Your task to perform on an android device: Go to Maps Image 0: 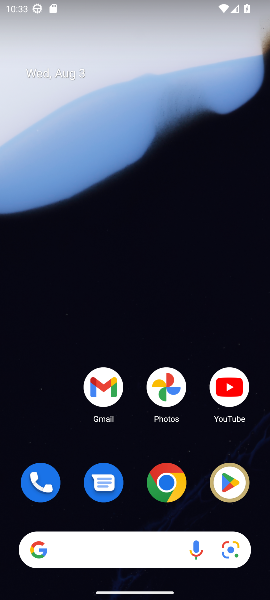
Step 0: drag from (119, 155) to (155, 17)
Your task to perform on an android device: Go to Maps Image 1: 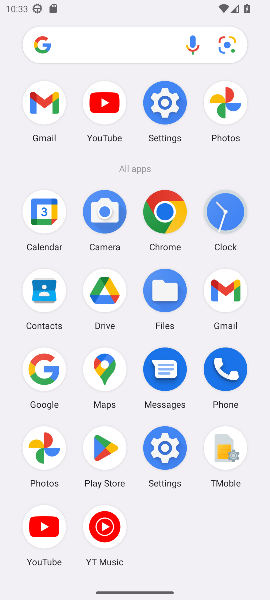
Step 1: click (98, 390)
Your task to perform on an android device: Go to Maps Image 2: 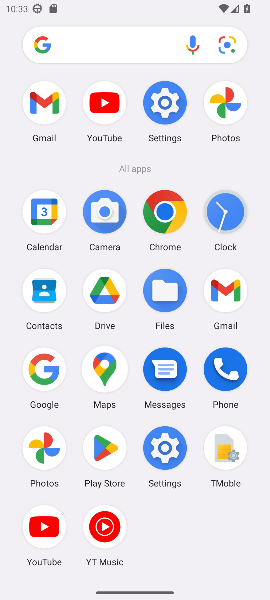
Step 2: task complete